Your task to perform on an android device: turn on data saver in the chrome app Image 0: 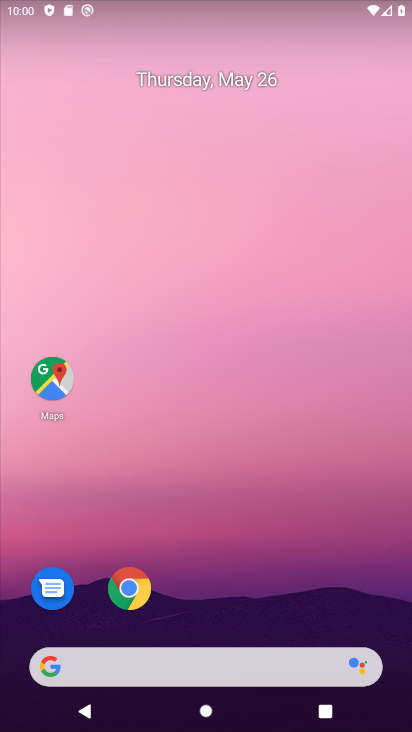
Step 0: click (124, 587)
Your task to perform on an android device: turn on data saver in the chrome app Image 1: 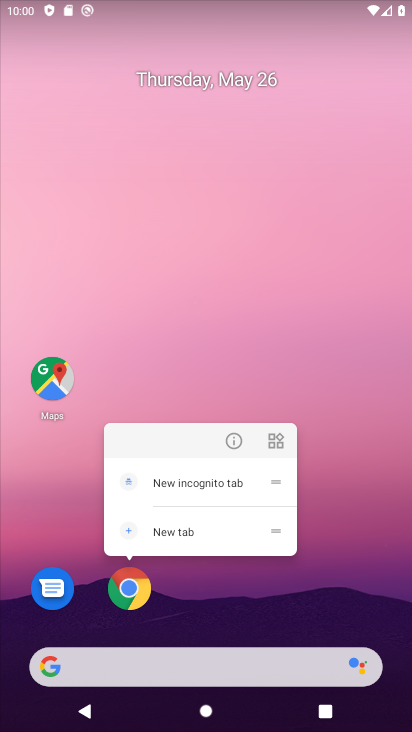
Step 1: click (135, 590)
Your task to perform on an android device: turn on data saver in the chrome app Image 2: 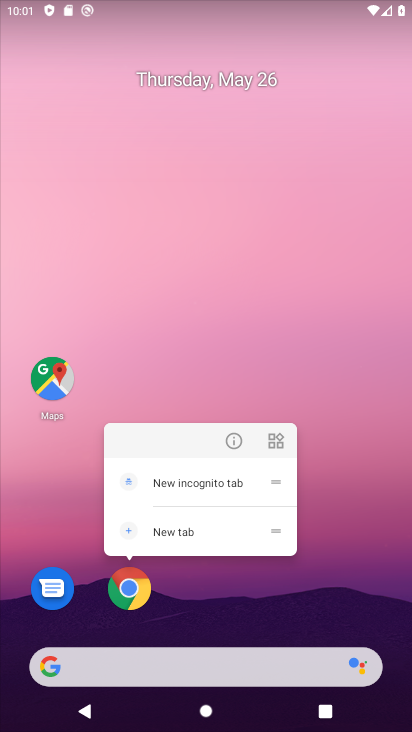
Step 2: click (139, 586)
Your task to perform on an android device: turn on data saver in the chrome app Image 3: 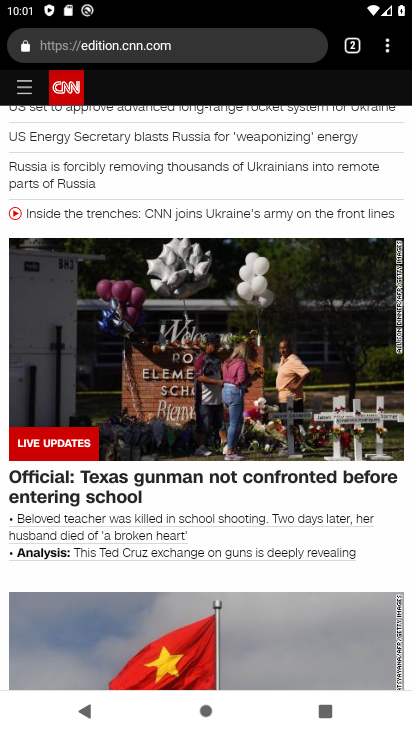
Step 3: click (384, 47)
Your task to perform on an android device: turn on data saver in the chrome app Image 4: 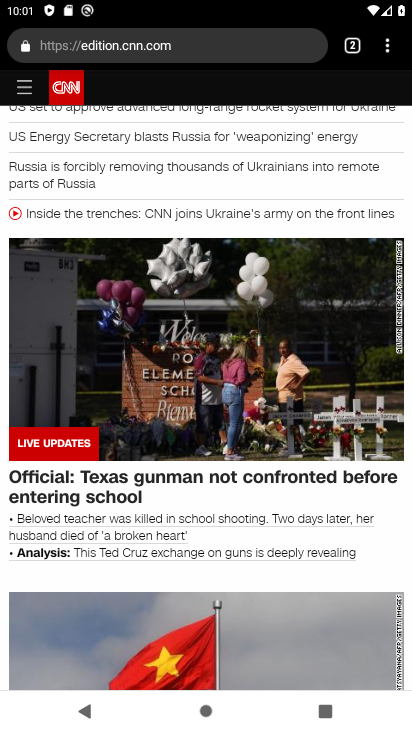
Step 4: click (384, 47)
Your task to perform on an android device: turn on data saver in the chrome app Image 5: 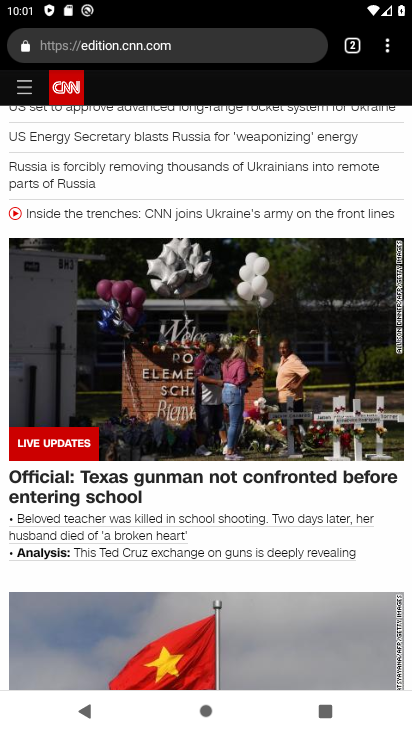
Step 5: click (392, 51)
Your task to perform on an android device: turn on data saver in the chrome app Image 6: 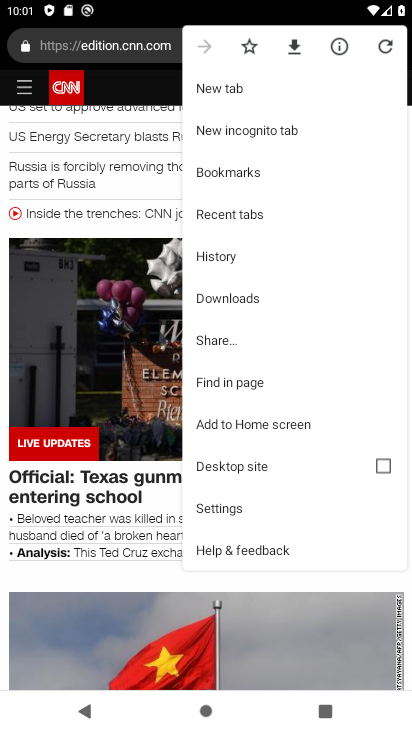
Step 6: click (232, 510)
Your task to perform on an android device: turn on data saver in the chrome app Image 7: 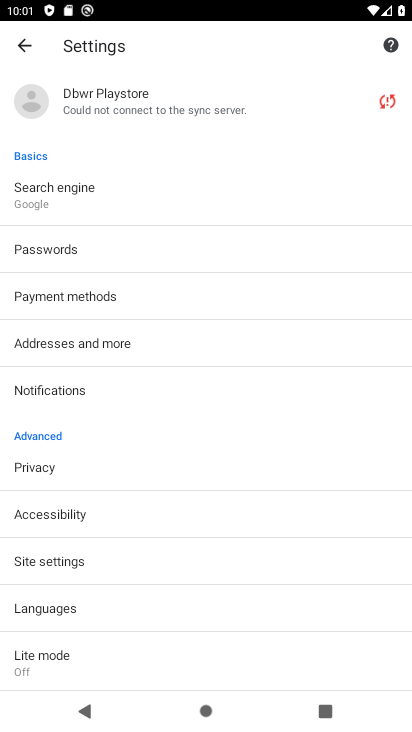
Step 7: click (50, 659)
Your task to perform on an android device: turn on data saver in the chrome app Image 8: 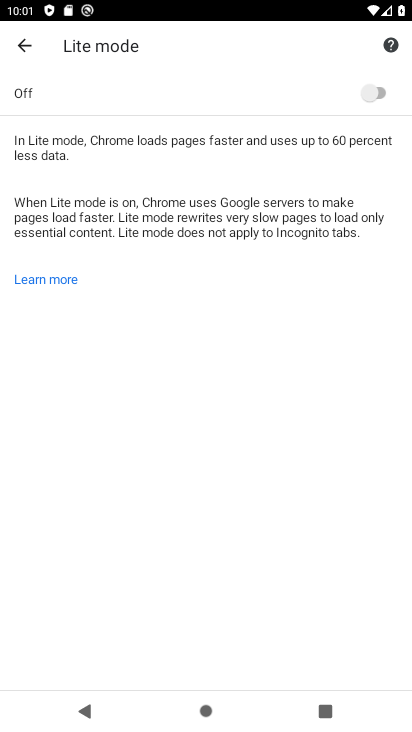
Step 8: click (385, 86)
Your task to perform on an android device: turn on data saver in the chrome app Image 9: 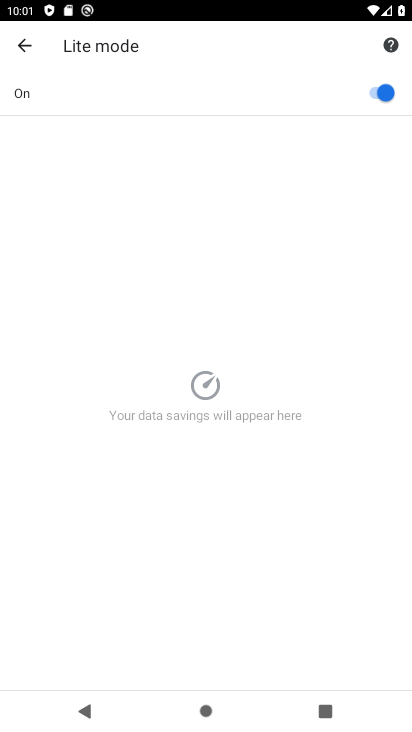
Step 9: task complete